Your task to perform on an android device: Go to location settings Image 0: 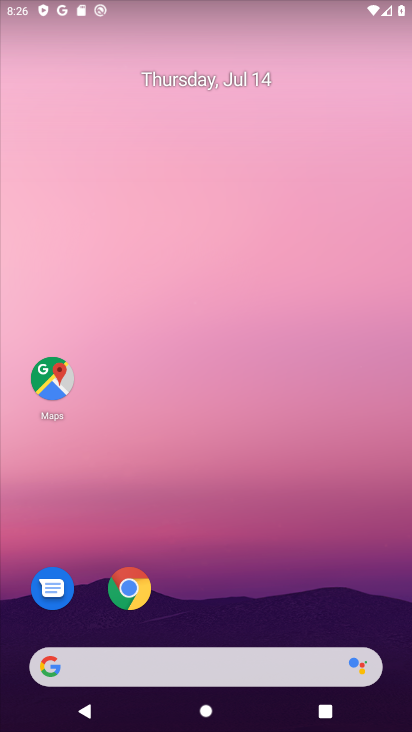
Step 0: drag from (247, 645) to (179, 240)
Your task to perform on an android device: Go to location settings Image 1: 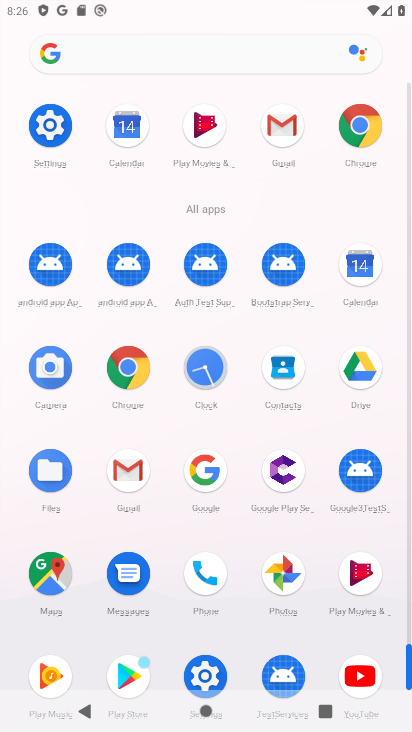
Step 1: click (48, 136)
Your task to perform on an android device: Go to location settings Image 2: 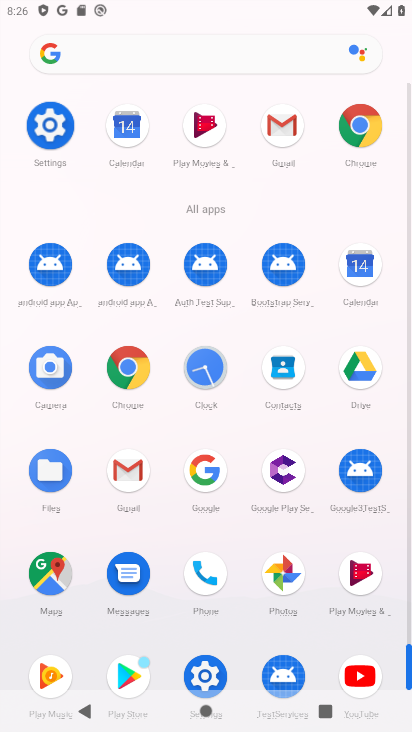
Step 2: click (47, 135)
Your task to perform on an android device: Go to location settings Image 3: 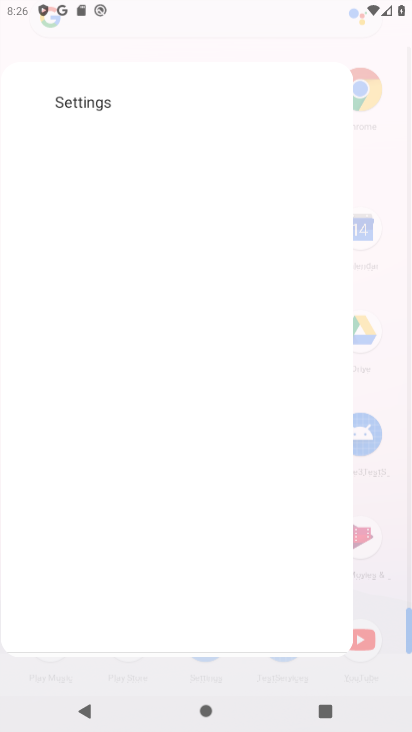
Step 3: click (50, 135)
Your task to perform on an android device: Go to location settings Image 4: 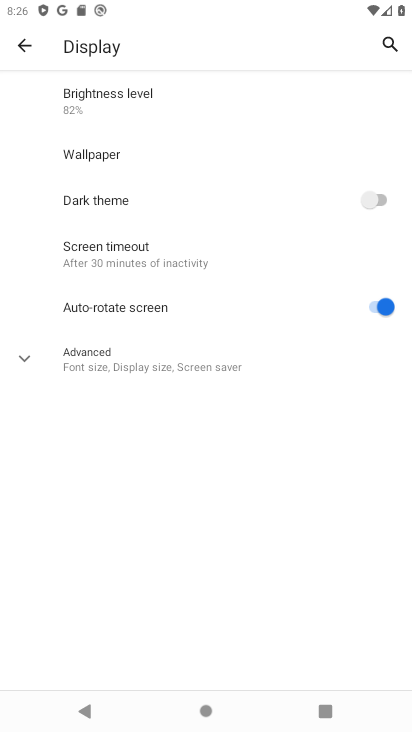
Step 4: click (19, 47)
Your task to perform on an android device: Go to location settings Image 5: 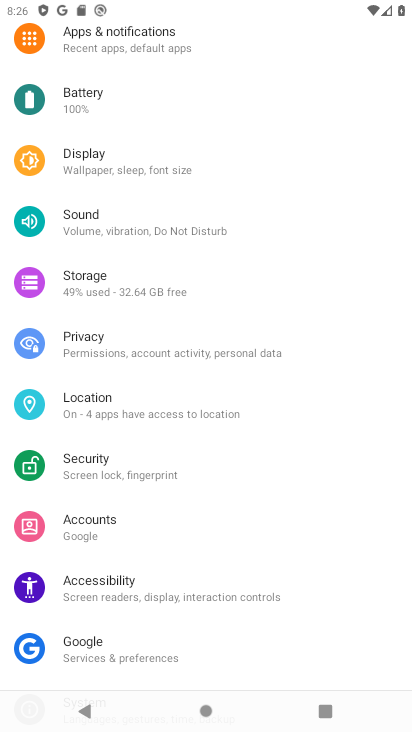
Step 5: drag from (172, 545) to (142, 134)
Your task to perform on an android device: Go to location settings Image 6: 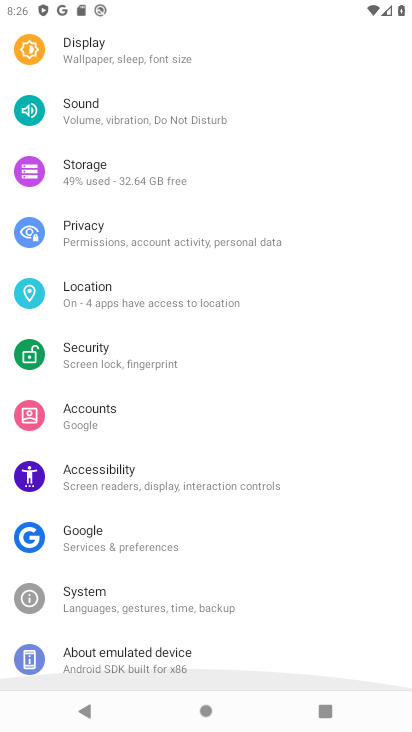
Step 6: drag from (168, 467) to (154, 112)
Your task to perform on an android device: Go to location settings Image 7: 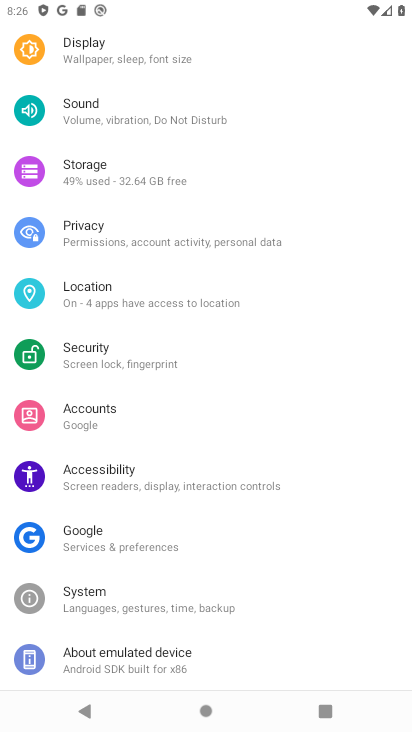
Step 7: click (95, 294)
Your task to perform on an android device: Go to location settings Image 8: 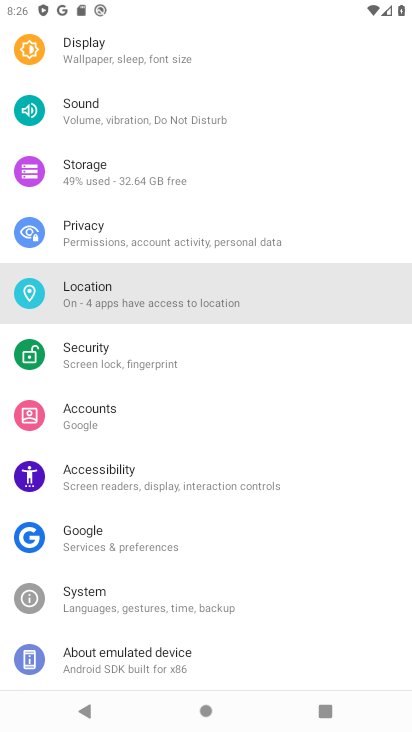
Step 8: click (95, 294)
Your task to perform on an android device: Go to location settings Image 9: 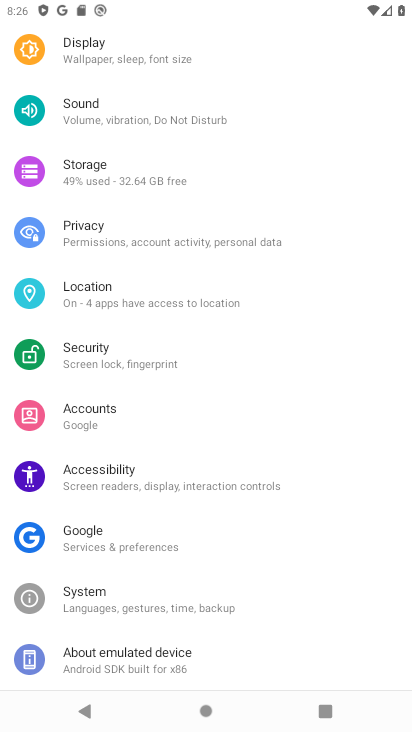
Step 9: click (94, 293)
Your task to perform on an android device: Go to location settings Image 10: 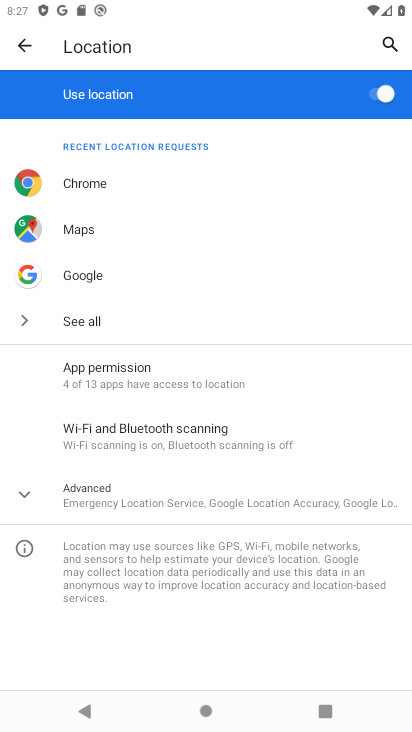
Step 10: task complete